Your task to perform on an android device: turn off location Image 0: 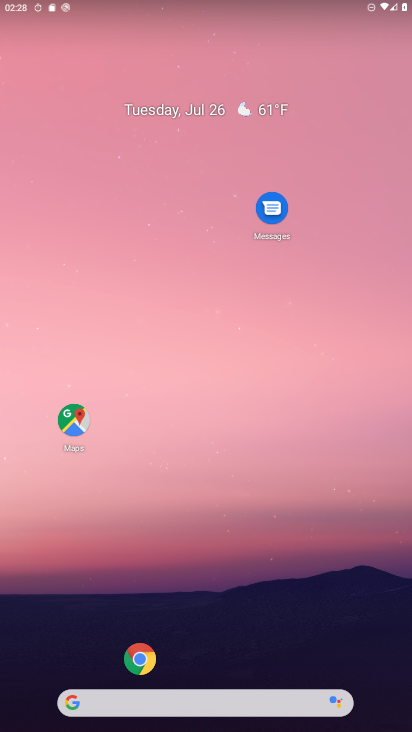
Step 0: click (79, 426)
Your task to perform on an android device: turn off location Image 1: 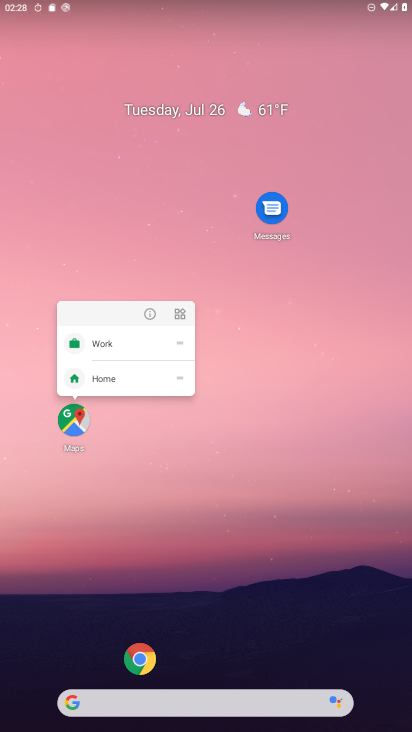
Step 1: click (79, 432)
Your task to perform on an android device: turn off location Image 2: 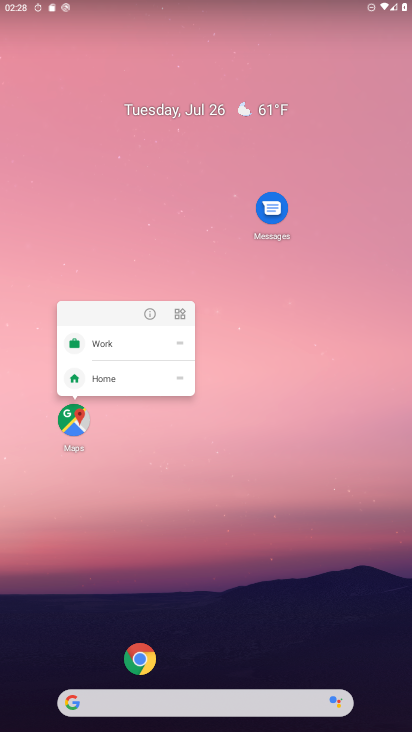
Step 2: drag from (11, 712) to (239, 46)
Your task to perform on an android device: turn off location Image 3: 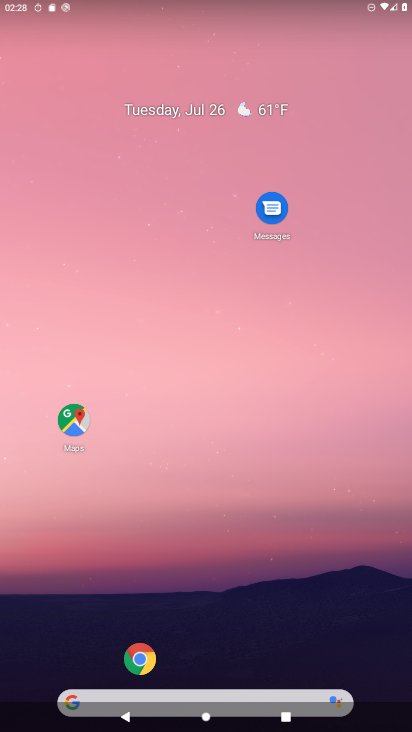
Step 3: drag from (49, 700) to (123, 113)
Your task to perform on an android device: turn off location Image 4: 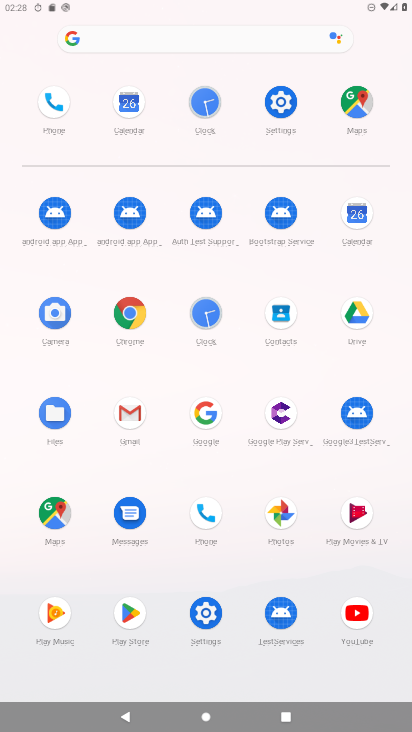
Step 4: click (198, 613)
Your task to perform on an android device: turn off location Image 5: 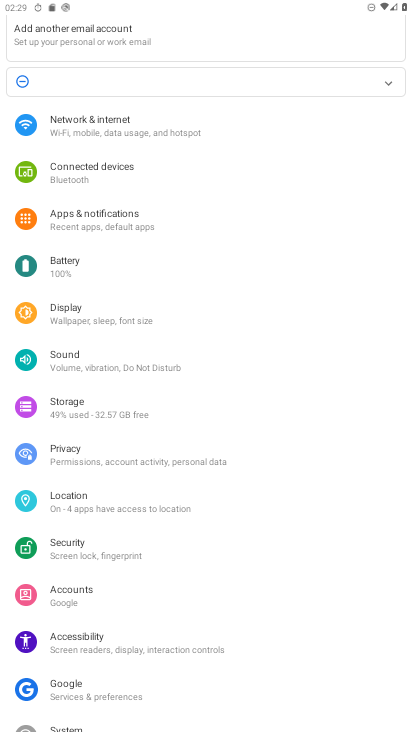
Step 5: click (104, 505)
Your task to perform on an android device: turn off location Image 6: 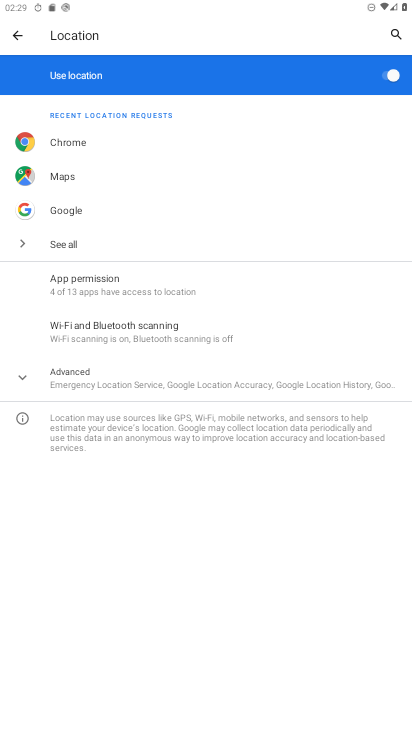
Step 6: click (394, 72)
Your task to perform on an android device: turn off location Image 7: 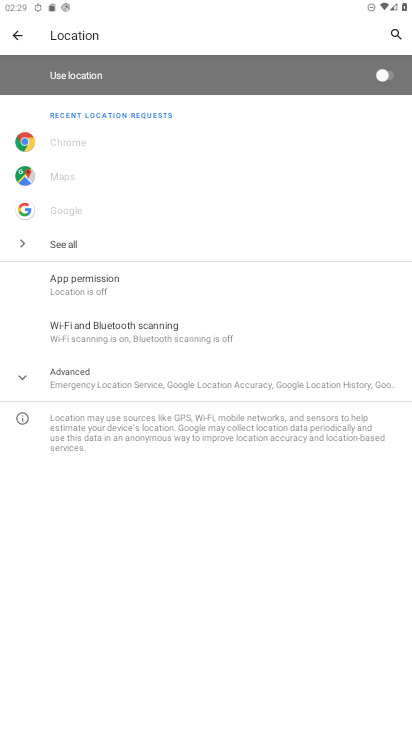
Step 7: task complete